Your task to perform on an android device: turn on airplane mode Image 0: 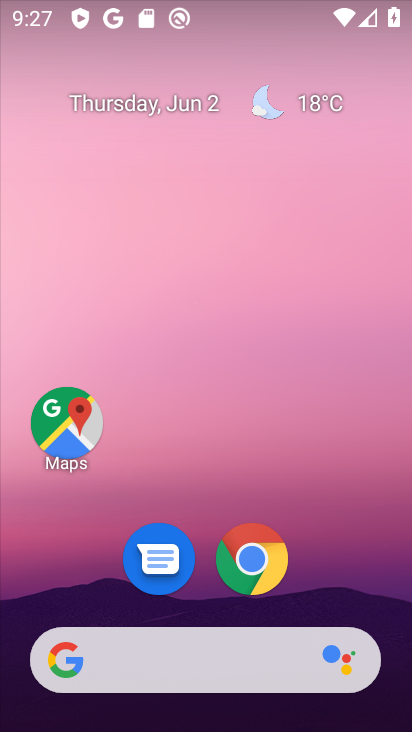
Step 0: drag from (337, 535) to (269, 109)
Your task to perform on an android device: turn on airplane mode Image 1: 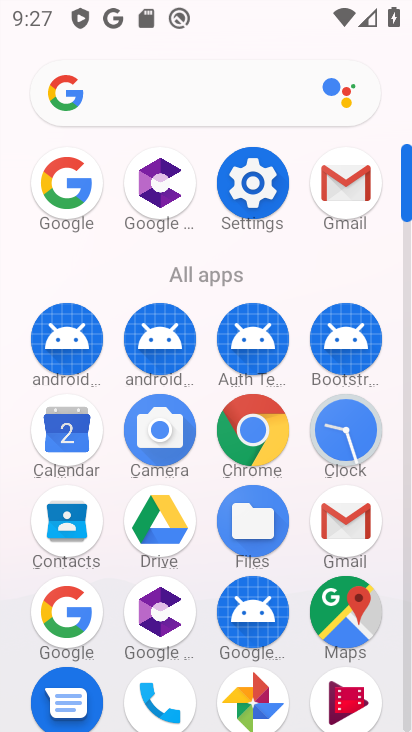
Step 1: click (254, 184)
Your task to perform on an android device: turn on airplane mode Image 2: 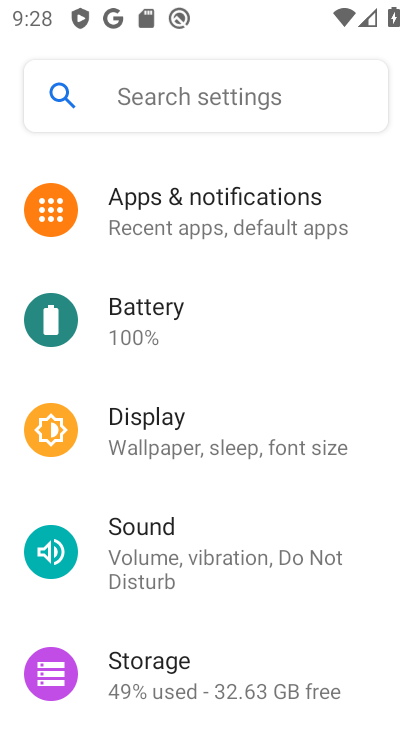
Step 2: drag from (252, 288) to (244, 373)
Your task to perform on an android device: turn on airplane mode Image 3: 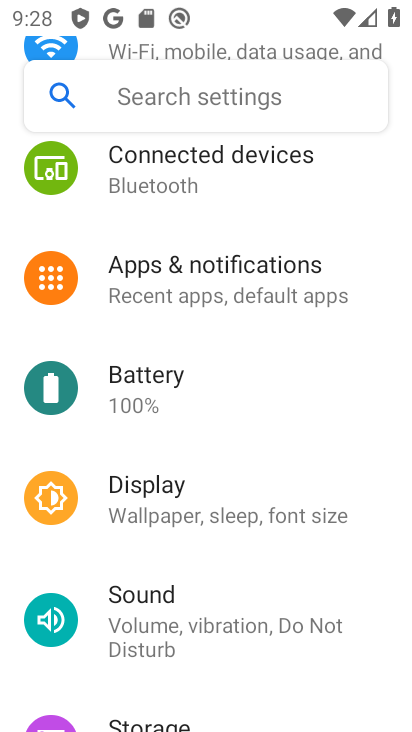
Step 3: drag from (273, 213) to (294, 314)
Your task to perform on an android device: turn on airplane mode Image 4: 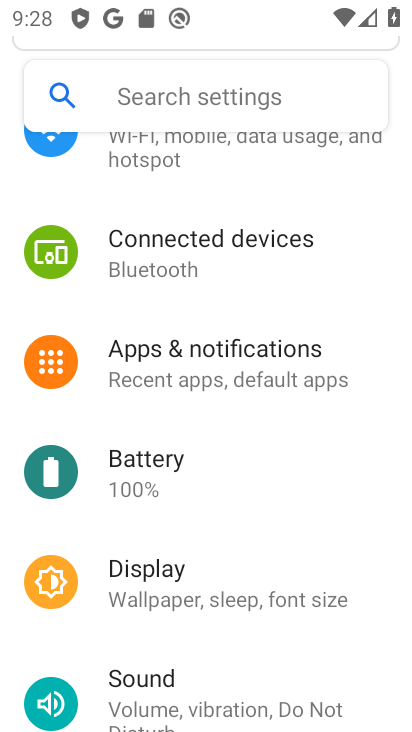
Step 4: drag from (282, 181) to (288, 403)
Your task to perform on an android device: turn on airplane mode Image 5: 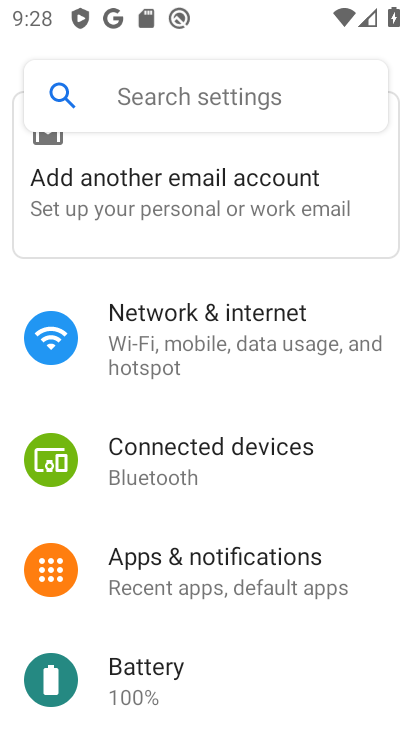
Step 5: click (238, 346)
Your task to perform on an android device: turn on airplane mode Image 6: 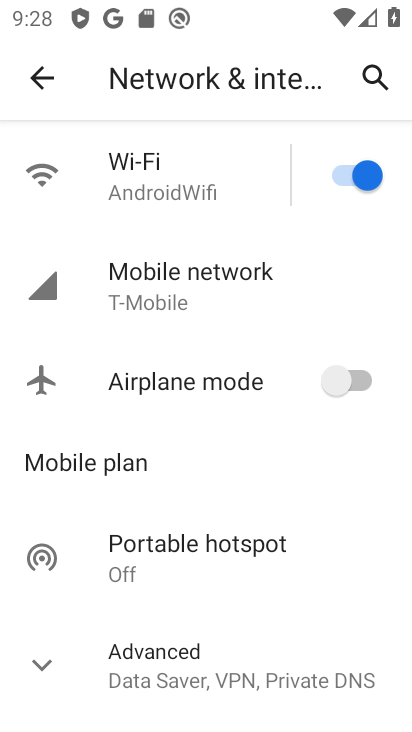
Step 6: click (350, 387)
Your task to perform on an android device: turn on airplane mode Image 7: 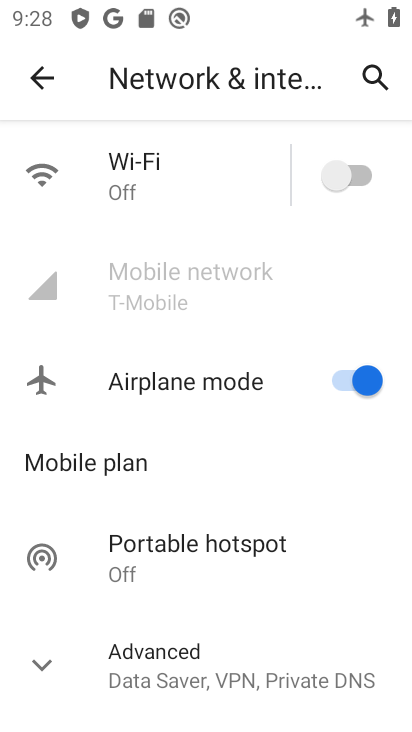
Step 7: task complete